Your task to perform on an android device: Open calendar and show me the fourth week of next month Image 0: 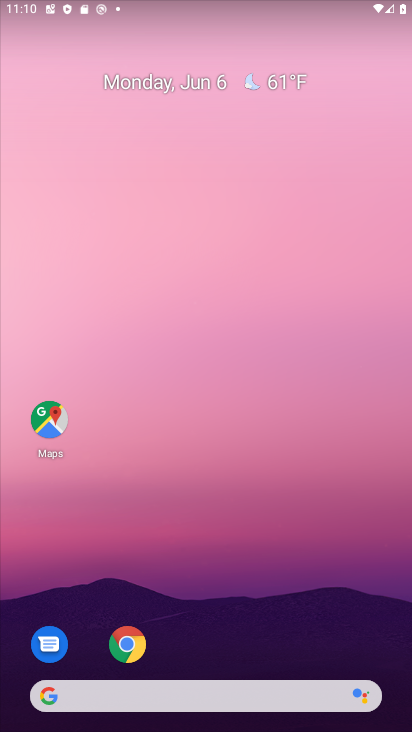
Step 0: drag from (179, 659) to (162, 187)
Your task to perform on an android device: Open calendar and show me the fourth week of next month Image 1: 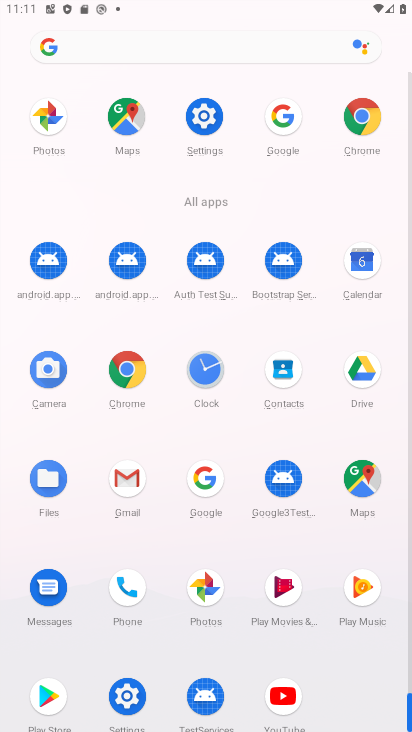
Step 1: drag from (178, 540) to (153, 235)
Your task to perform on an android device: Open calendar and show me the fourth week of next month Image 2: 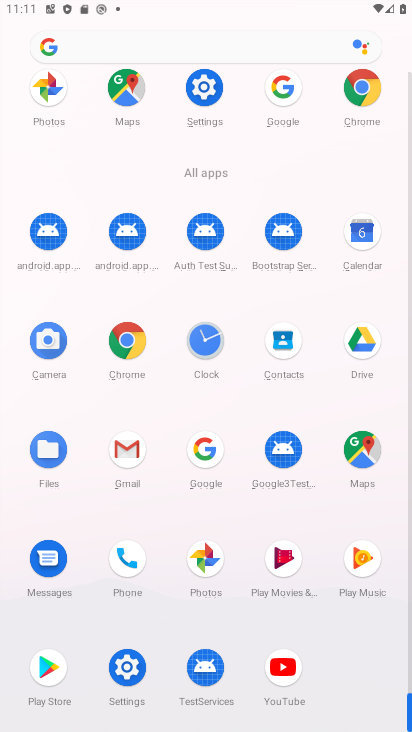
Step 2: click (364, 236)
Your task to perform on an android device: Open calendar and show me the fourth week of next month Image 3: 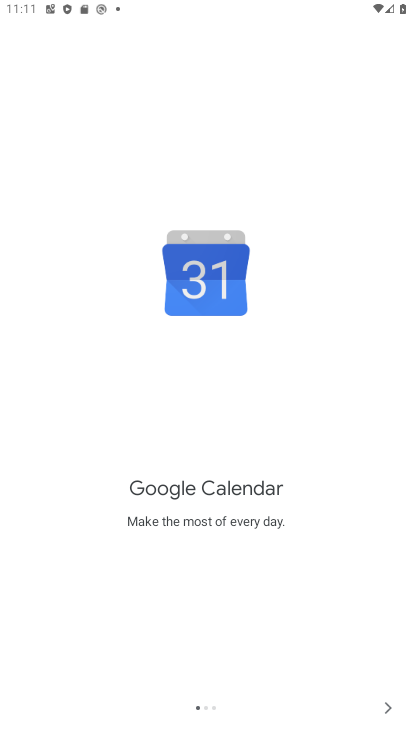
Step 3: click (379, 713)
Your task to perform on an android device: Open calendar and show me the fourth week of next month Image 4: 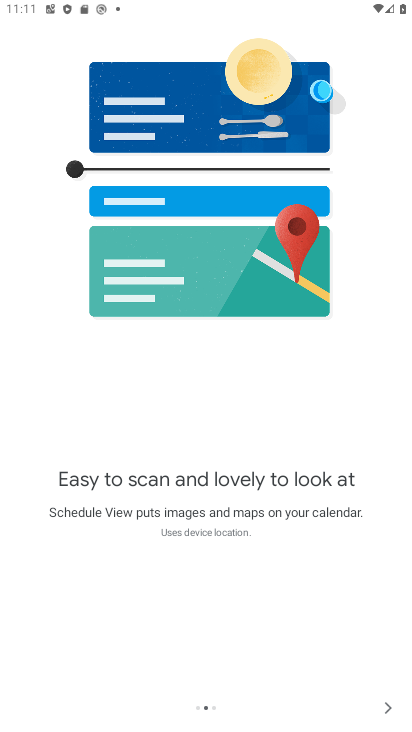
Step 4: click (388, 699)
Your task to perform on an android device: Open calendar and show me the fourth week of next month Image 5: 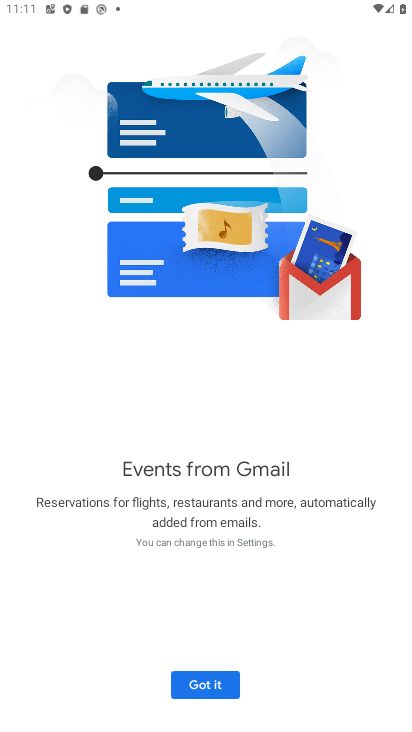
Step 5: click (386, 701)
Your task to perform on an android device: Open calendar and show me the fourth week of next month Image 6: 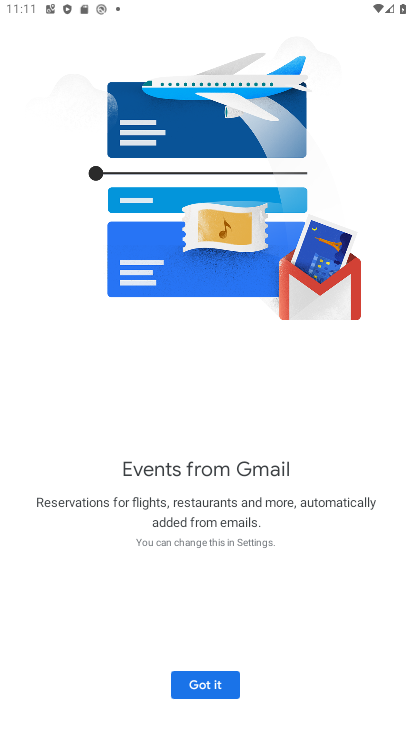
Step 6: click (188, 682)
Your task to perform on an android device: Open calendar and show me the fourth week of next month Image 7: 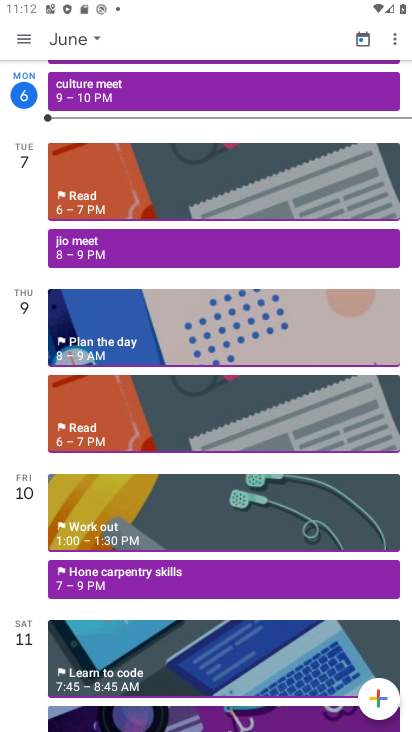
Step 7: press home button
Your task to perform on an android device: Open calendar and show me the fourth week of next month Image 8: 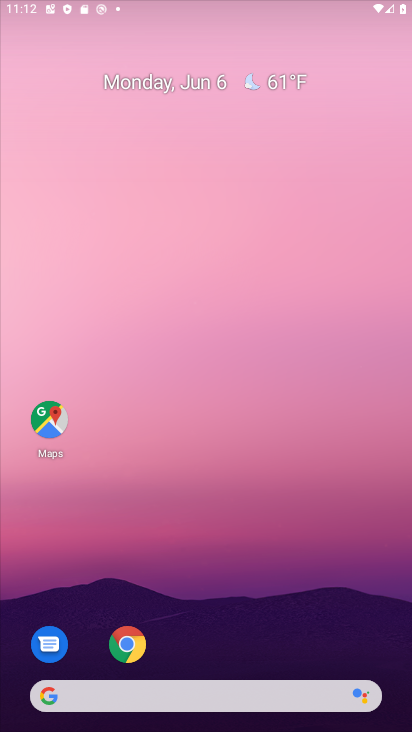
Step 8: drag from (184, 564) to (152, 92)
Your task to perform on an android device: Open calendar and show me the fourth week of next month Image 9: 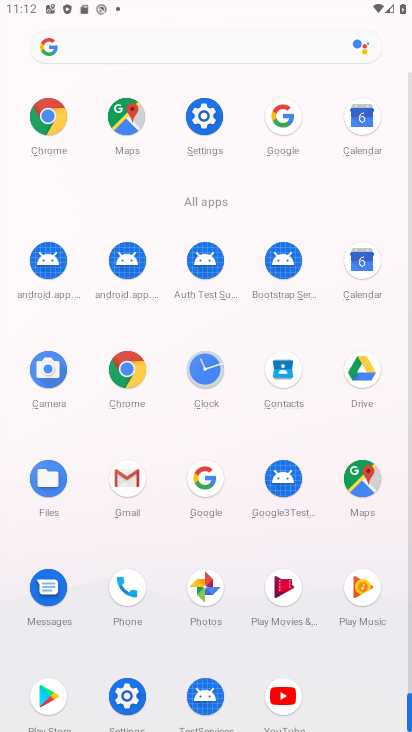
Step 9: click (361, 282)
Your task to perform on an android device: Open calendar and show me the fourth week of next month Image 10: 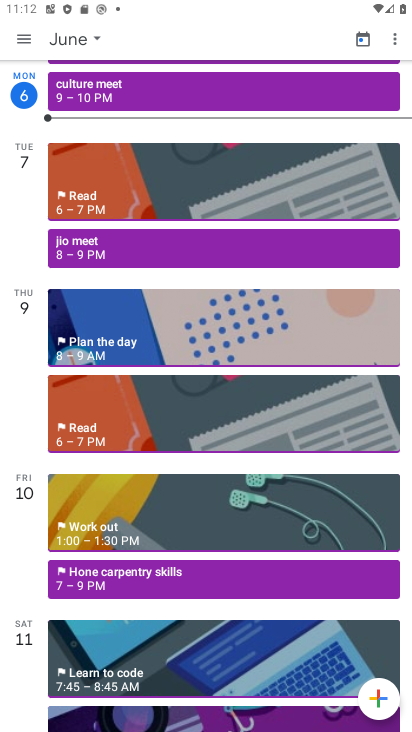
Step 10: click (83, 36)
Your task to perform on an android device: Open calendar and show me the fourth week of next month Image 11: 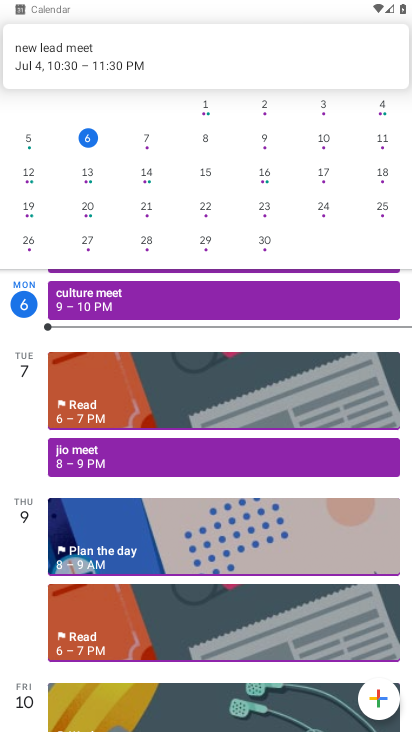
Step 11: drag from (326, 187) to (7, 202)
Your task to perform on an android device: Open calendar and show me the fourth week of next month Image 12: 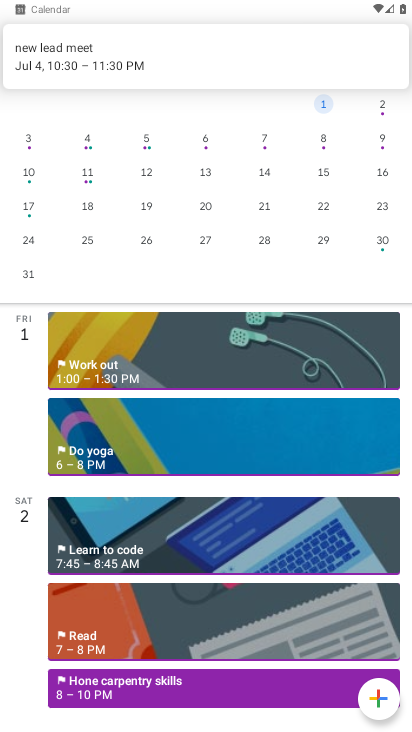
Step 12: click (28, 242)
Your task to perform on an android device: Open calendar and show me the fourth week of next month Image 13: 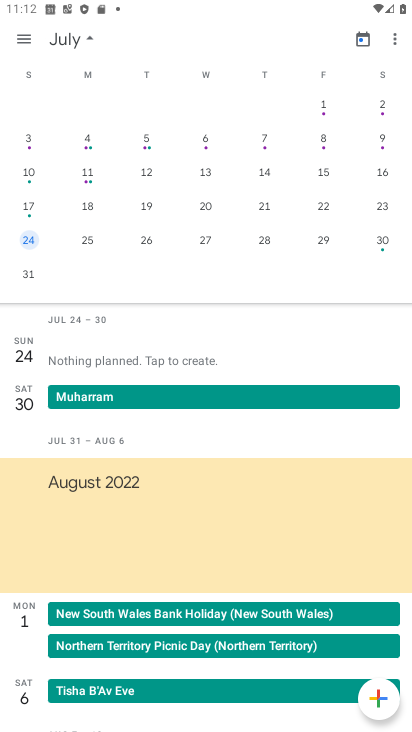
Step 13: task complete